Your task to perform on an android device: Open Google Chrome and open the bookmarks view Image 0: 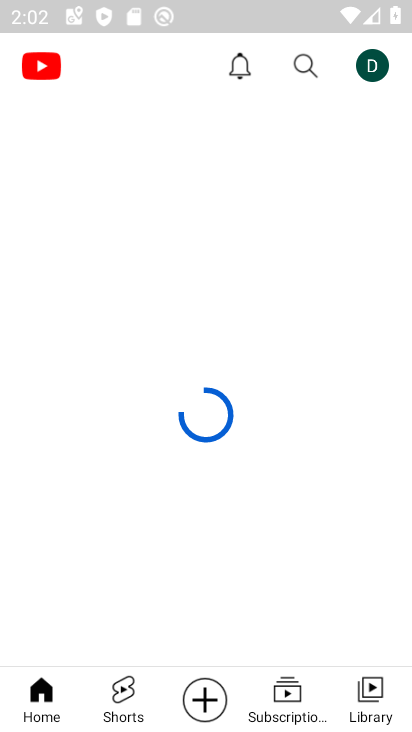
Step 0: press home button
Your task to perform on an android device: Open Google Chrome and open the bookmarks view Image 1: 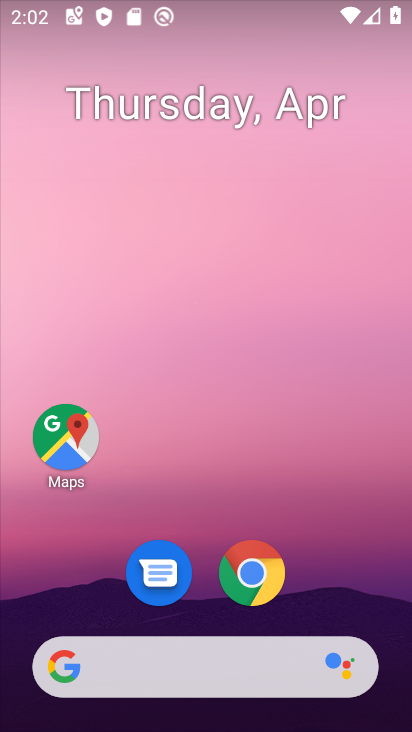
Step 1: drag from (339, 599) to (343, 93)
Your task to perform on an android device: Open Google Chrome and open the bookmarks view Image 2: 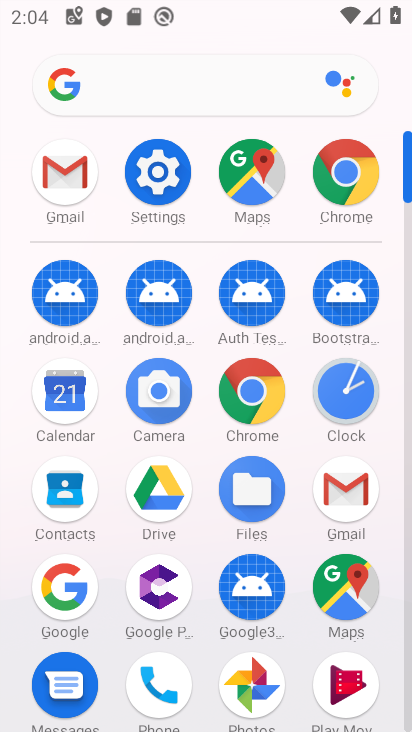
Step 2: click (262, 390)
Your task to perform on an android device: Open Google Chrome and open the bookmarks view Image 3: 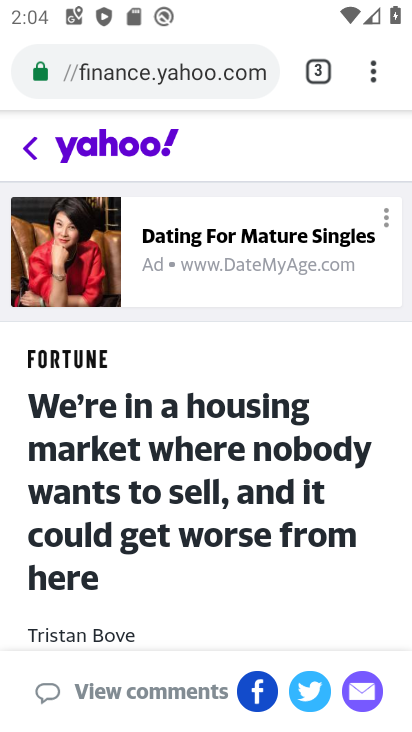
Step 3: click (372, 72)
Your task to perform on an android device: Open Google Chrome and open the bookmarks view Image 4: 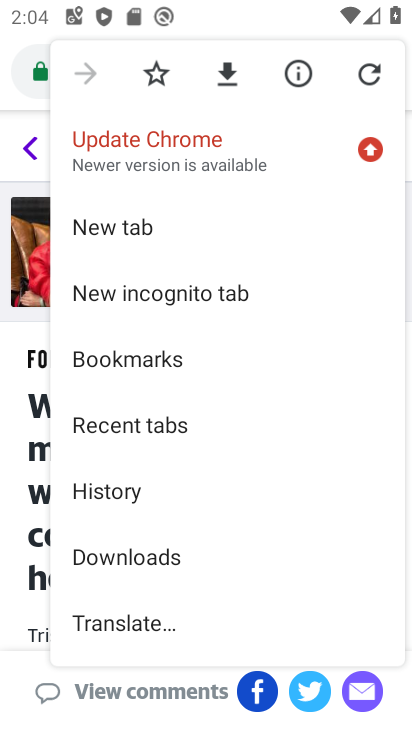
Step 4: click (142, 356)
Your task to perform on an android device: Open Google Chrome and open the bookmarks view Image 5: 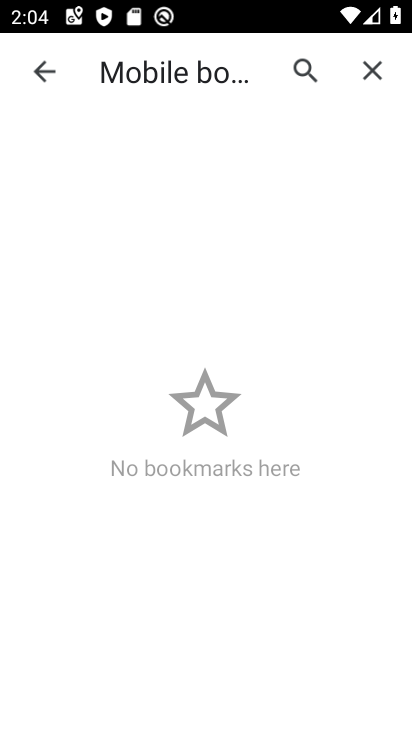
Step 5: task complete